Your task to perform on an android device: Go to wifi settings Image 0: 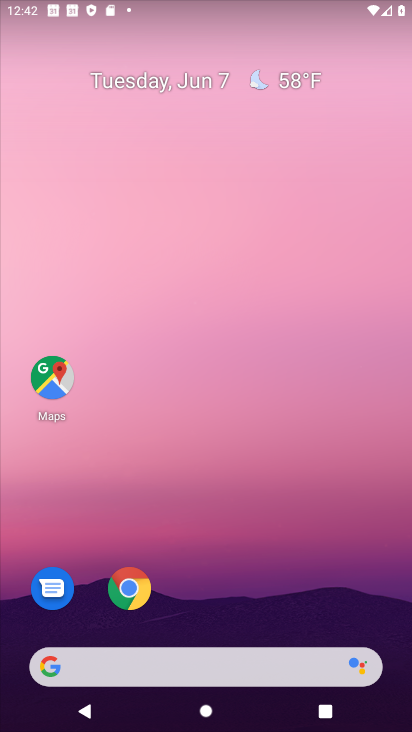
Step 0: drag from (261, 651) to (265, 251)
Your task to perform on an android device: Go to wifi settings Image 1: 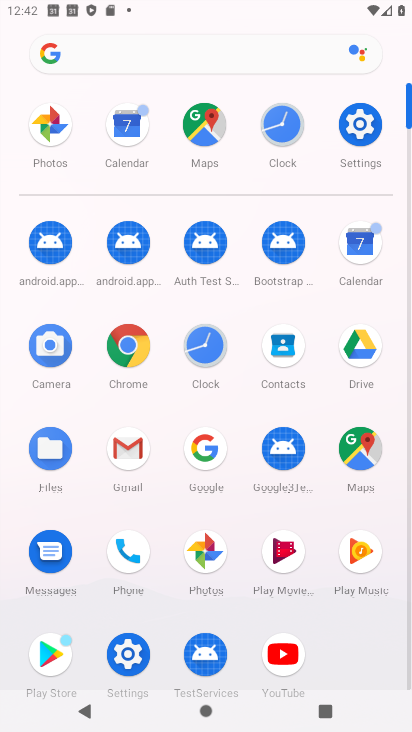
Step 1: click (349, 172)
Your task to perform on an android device: Go to wifi settings Image 2: 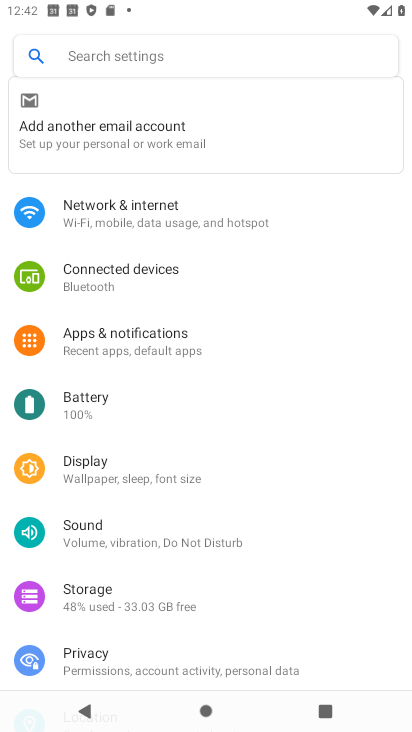
Step 2: click (207, 217)
Your task to perform on an android device: Go to wifi settings Image 3: 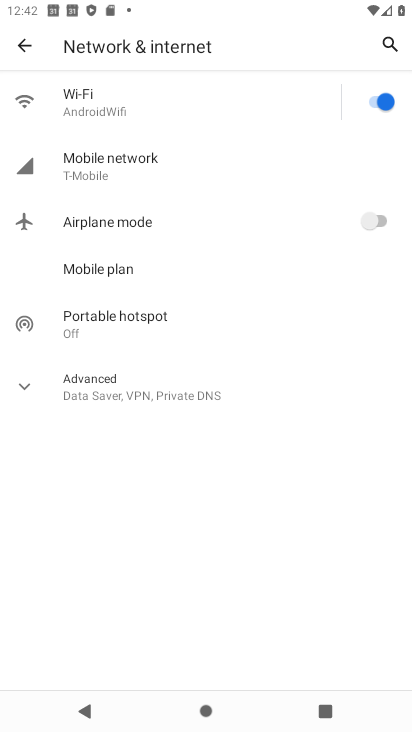
Step 3: click (177, 107)
Your task to perform on an android device: Go to wifi settings Image 4: 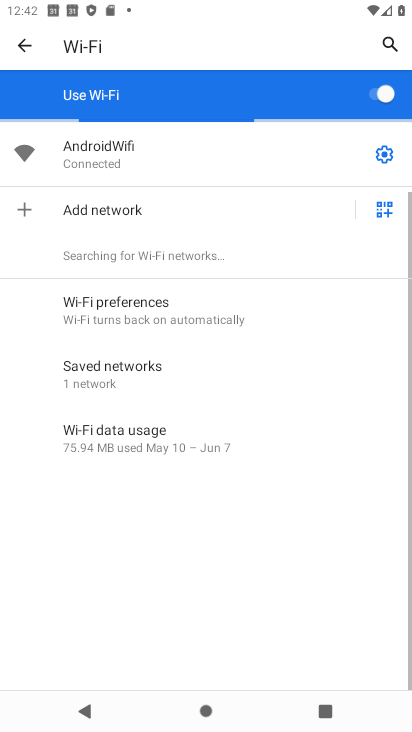
Step 4: task complete